Your task to perform on an android device: install app "Adobe Acrobat Reader: Edit PDF" Image 0: 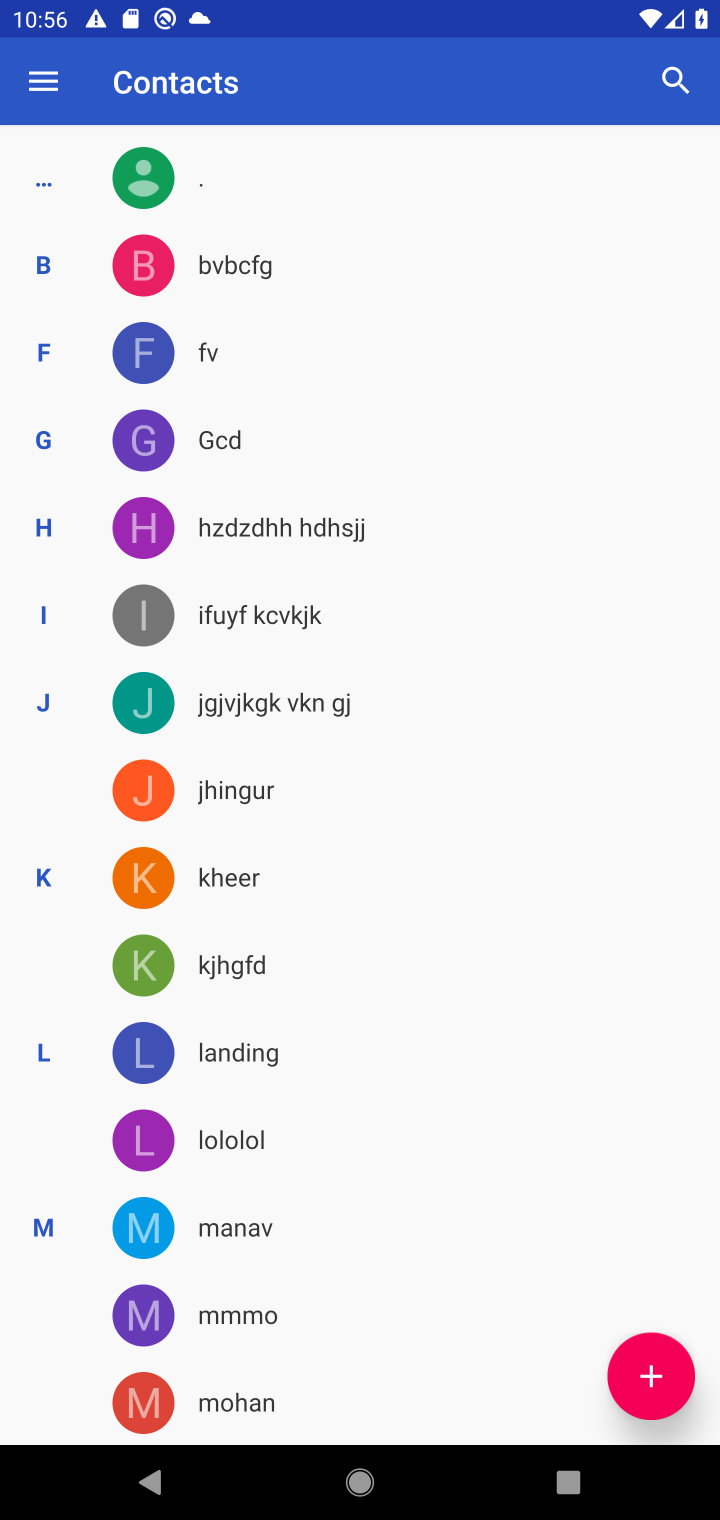
Step 0: press home button
Your task to perform on an android device: install app "Adobe Acrobat Reader: Edit PDF" Image 1: 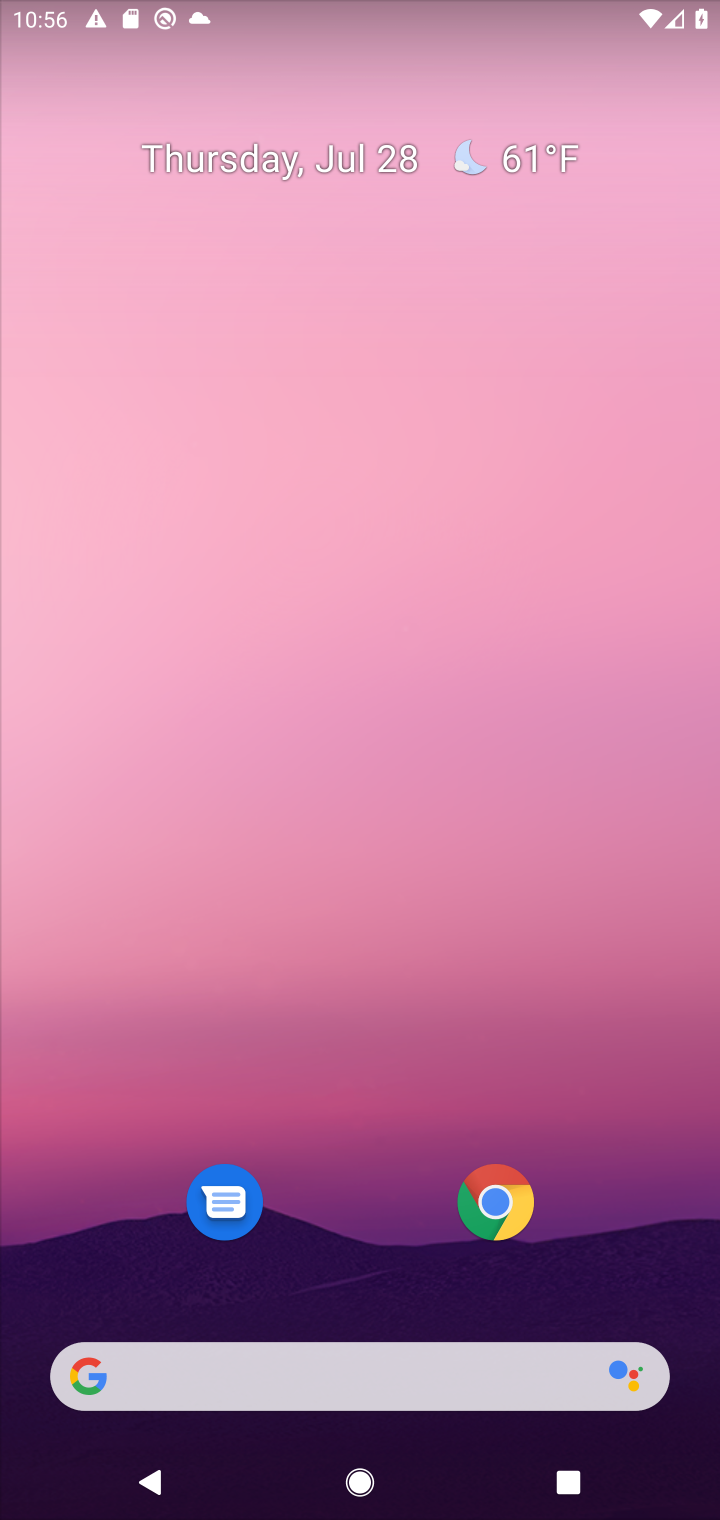
Step 1: click (440, 1361)
Your task to perform on an android device: install app "Adobe Acrobat Reader: Edit PDF" Image 2: 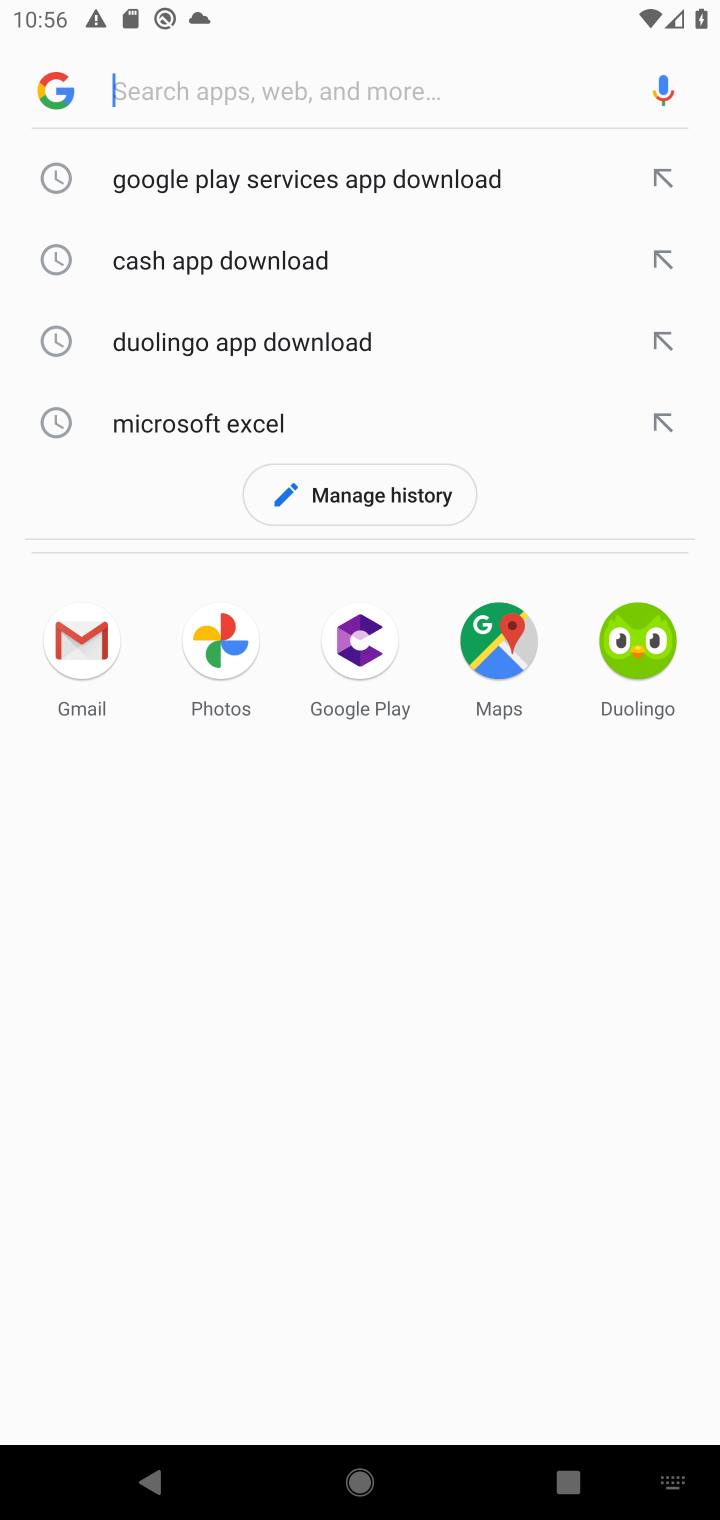
Step 2: type "adobe acrobat reader"
Your task to perform on an android device: install app "Adobe Acrobat Reader: Edit PDF" Image 3: 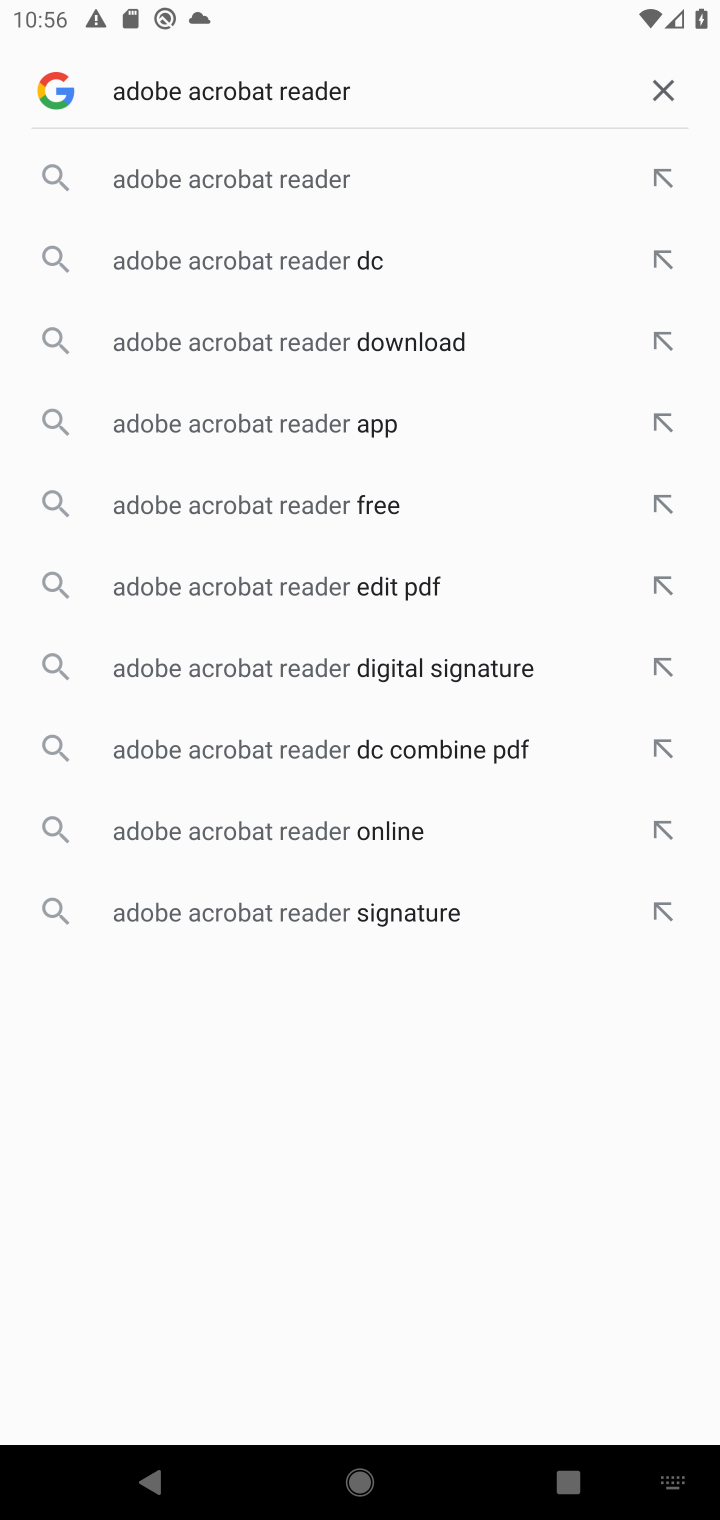
Step 3: click (454, 158)
Your task to perform on an android device: install app "Adobe Acrobat Reader: Edit PDF" Image 4: 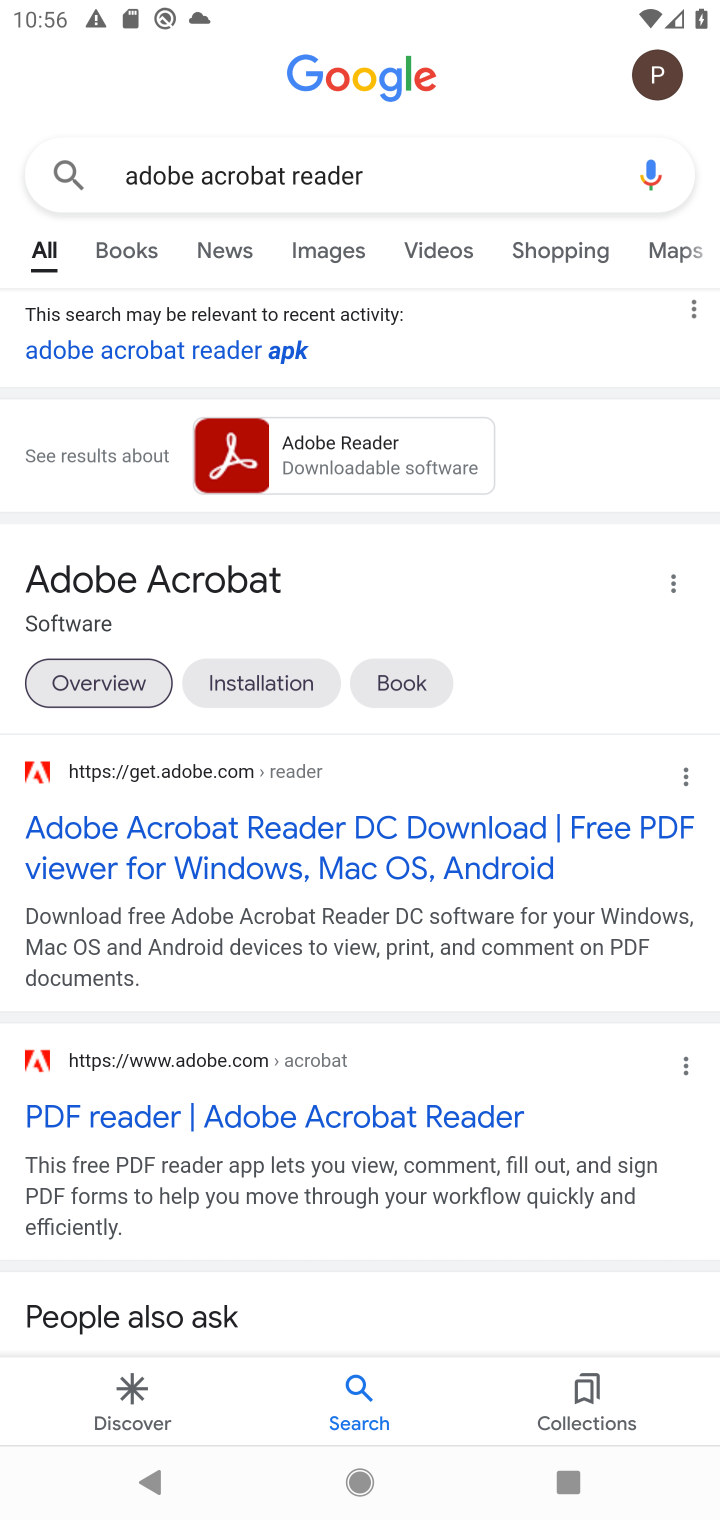
Step 4: drag from (457, 982) to (468, 471)
Your task to perform on an android device: install app "Adobe Acrobat Reader: Edit PDF" Image 5: 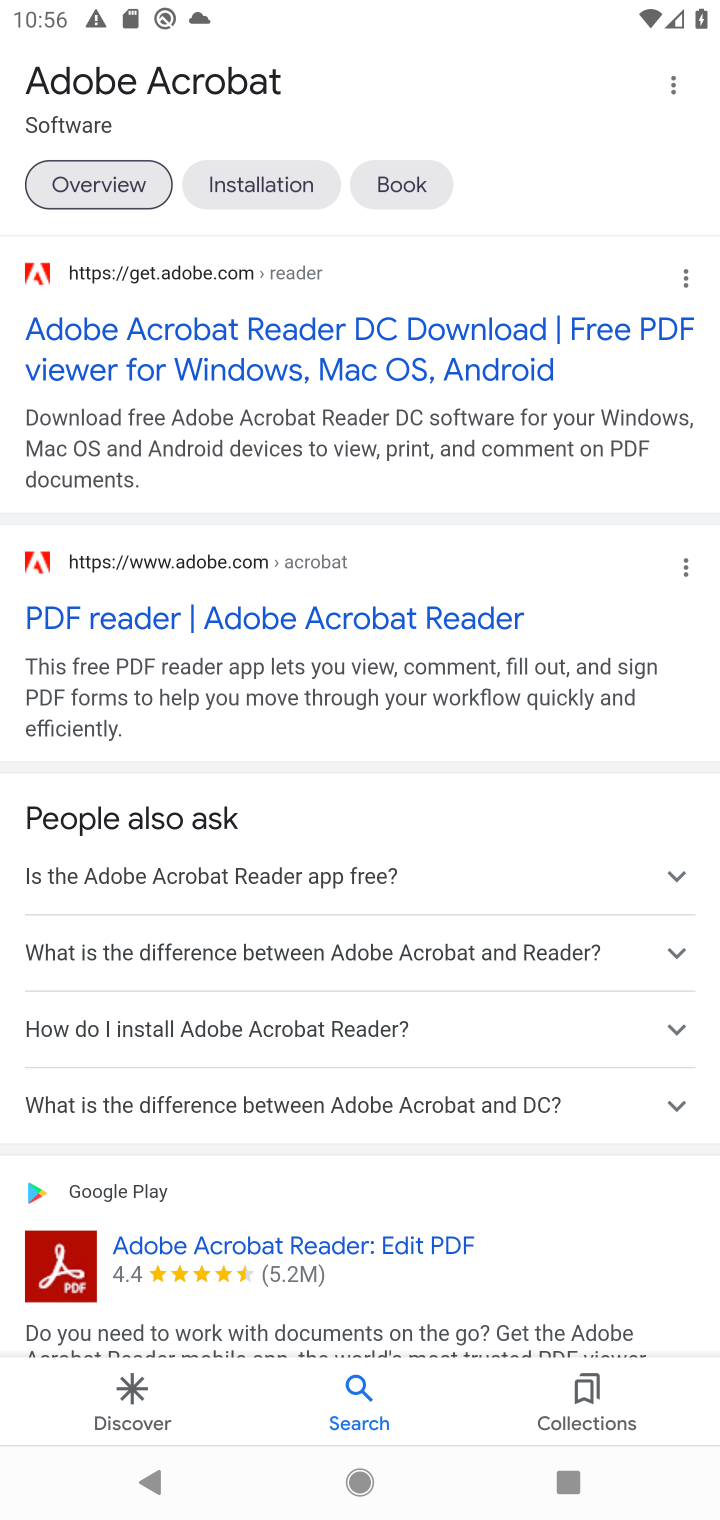
Step 5: drag from (560, 1232) to (492, 447)
Your task to perform on an android device: install app "Adobe Acrobat Reader: Edit PDF" Image 6: 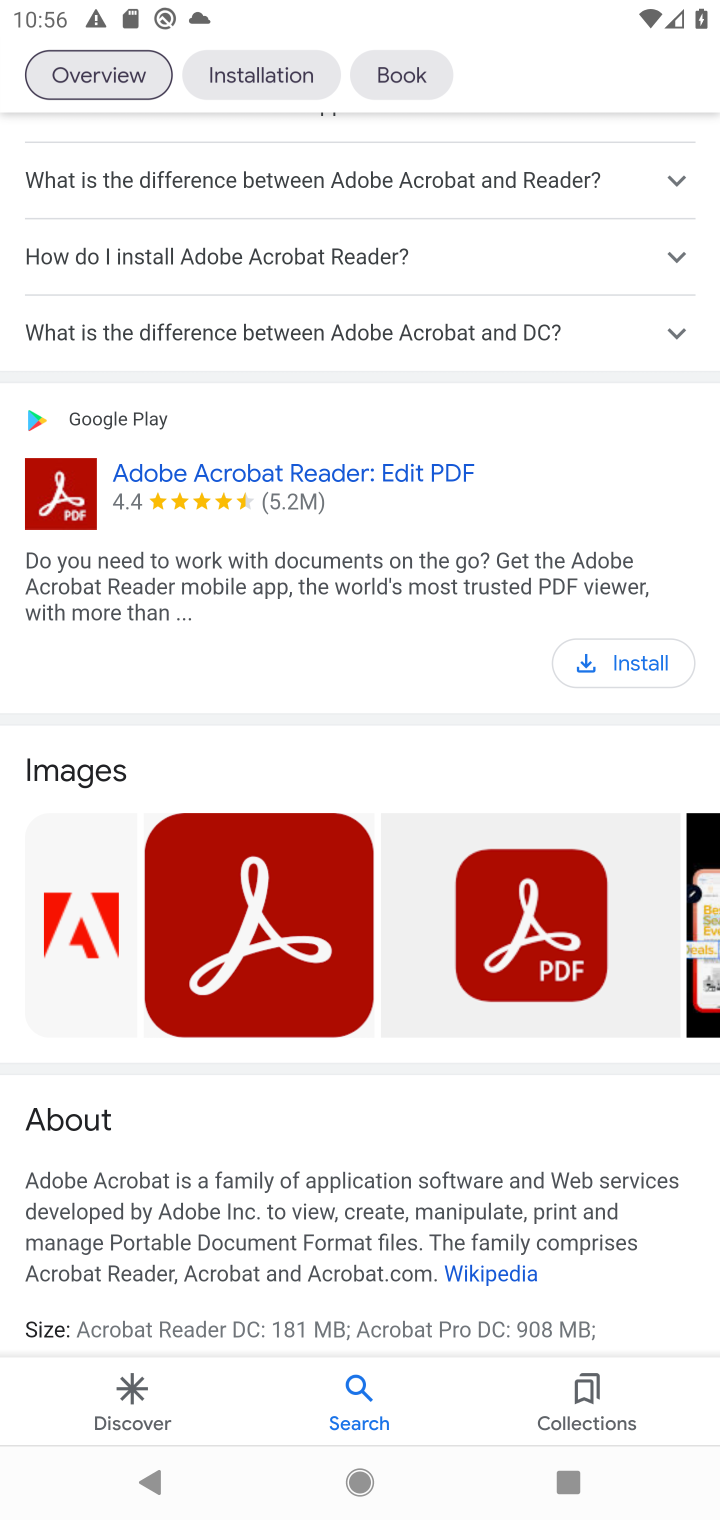
Step 6: click (620, 658)
Your task to perform on an android device: install app "Adobe Acrobat Reader: Edit PDF" Image 7: 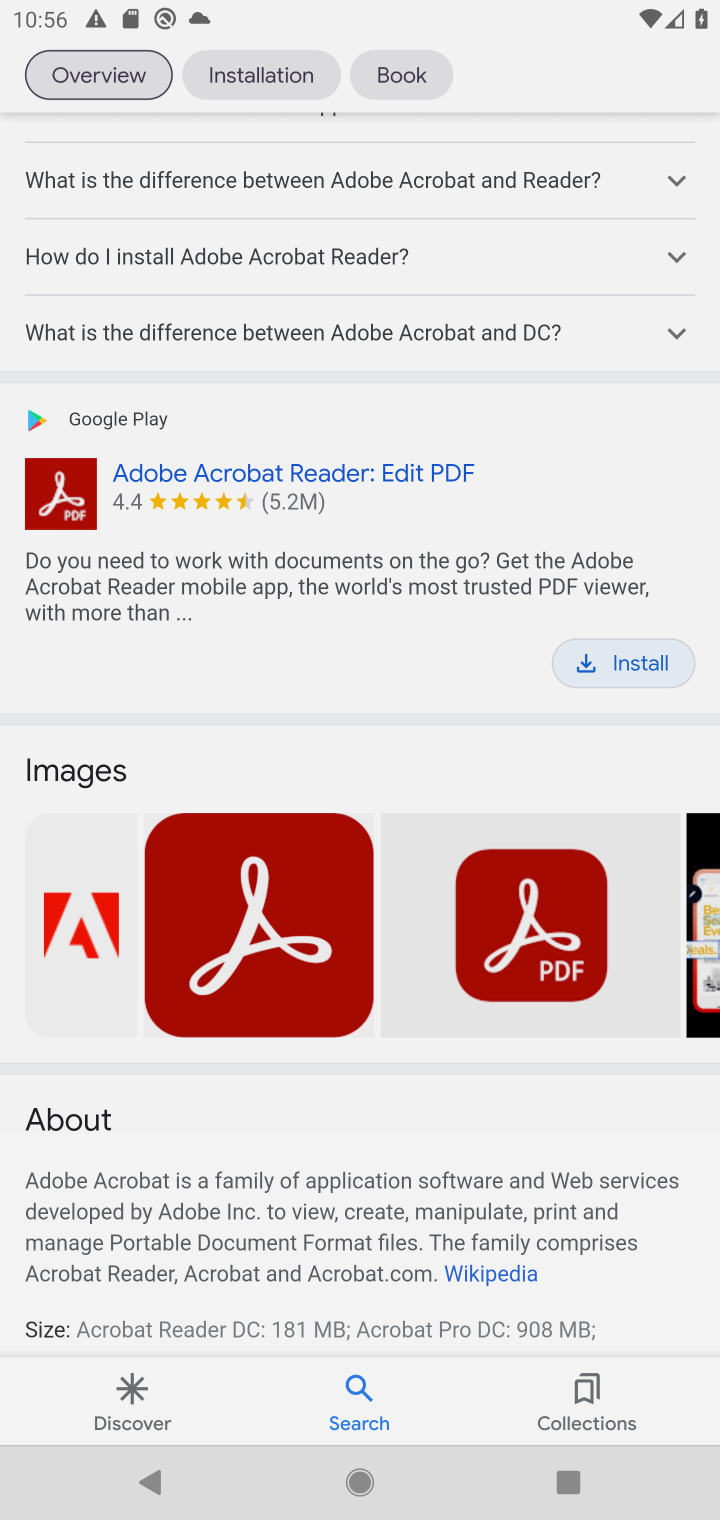
Step 7: task complete